Your task to perform on an android device: Show me productivity apps on the Play Store Image 0: 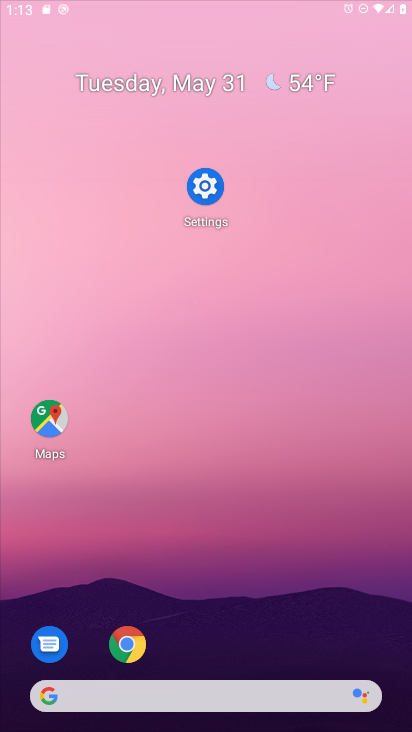
Step 0: press home button
Your task to perform on an android device: Show me productivity apps on the Play Store Image 1: 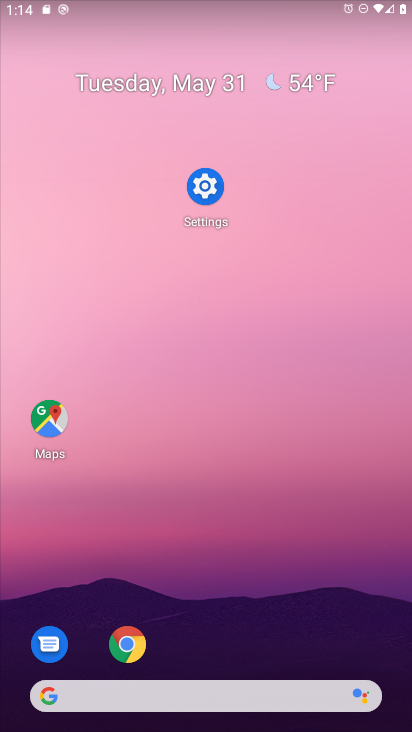
Step 1: drag from (260, 498) to (273, 20)
Your task to perform on an android device: Show me productivity apps on the Play Store Image 2: 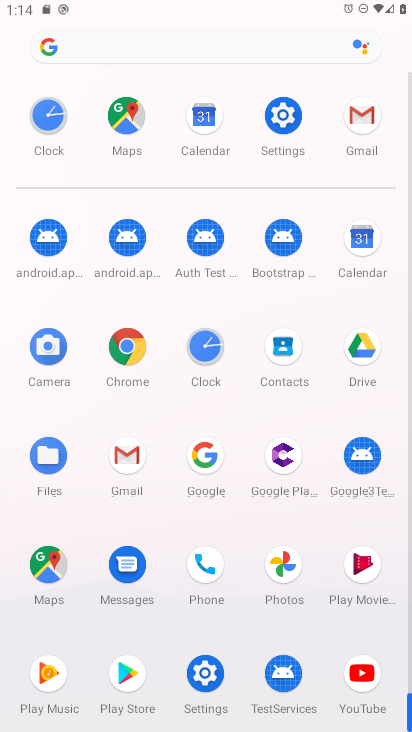
Step 2: click (129, 669)
Your task to perform on an android device: Show me productivity apps on the Play Store Image 3: 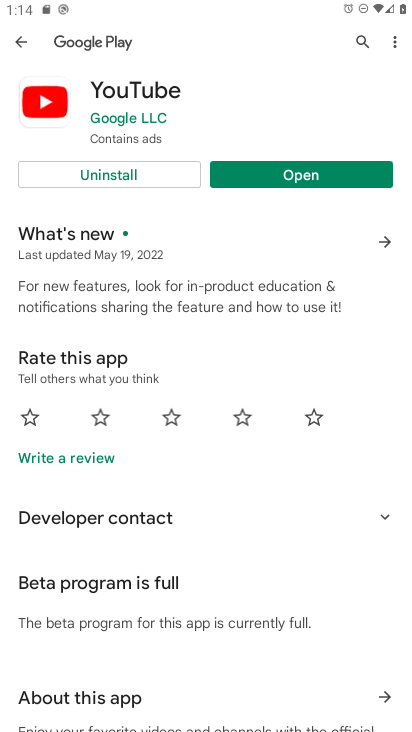
Step 3: click (23, 43)
Your task to perform on an android device: Show me productivity apps on the Play Store Image 4: 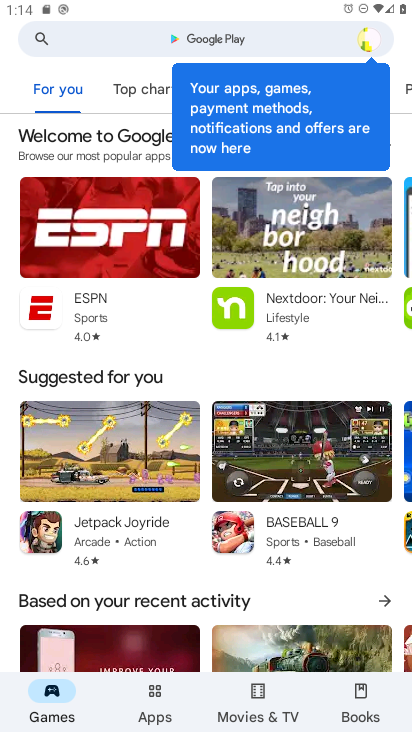
Step 4: click (147, 690)
Your task to perform on an android device: Show me productivity apps on the Play Store Image 5: 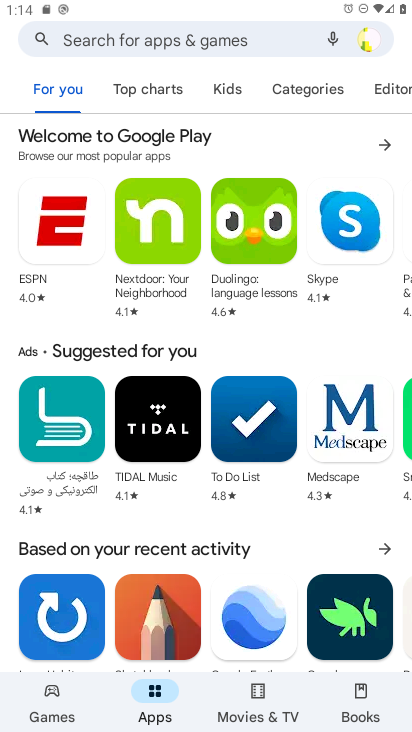
Step 5: click (317, 89)
Your task to perform on an android device: Show me productivity apps on the Play Store Image 6: 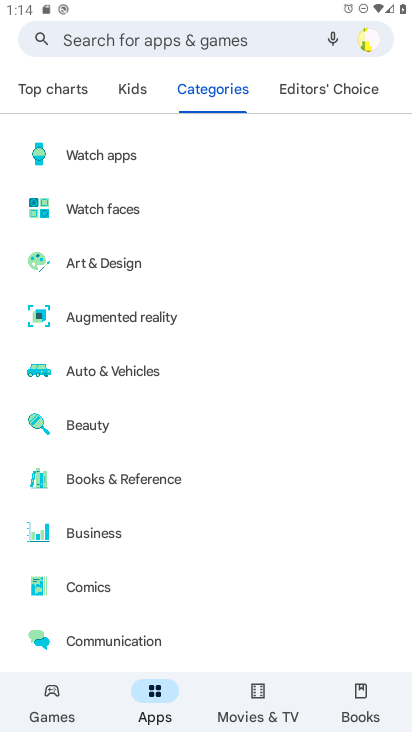
Step 6: drag from (259, 578) to (291, 179)
Your task to perform on an android device: Show me productivity apps on the Play Store Image 7: 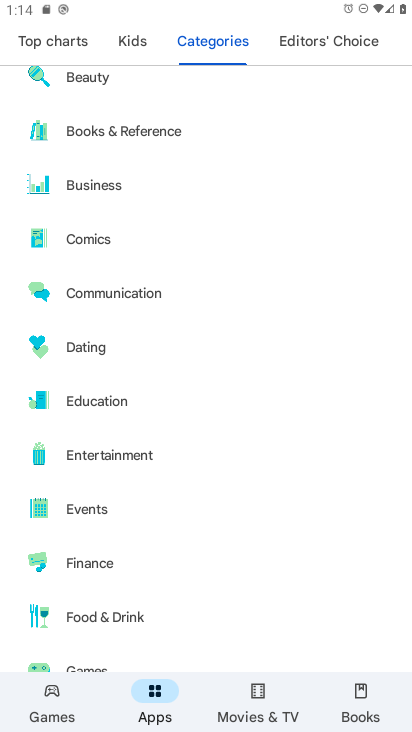
Step 7: drag from (292, 537) to (348, 110)
Your task to perform on an android device: Show me productivity apps on the Play Store Image 8: 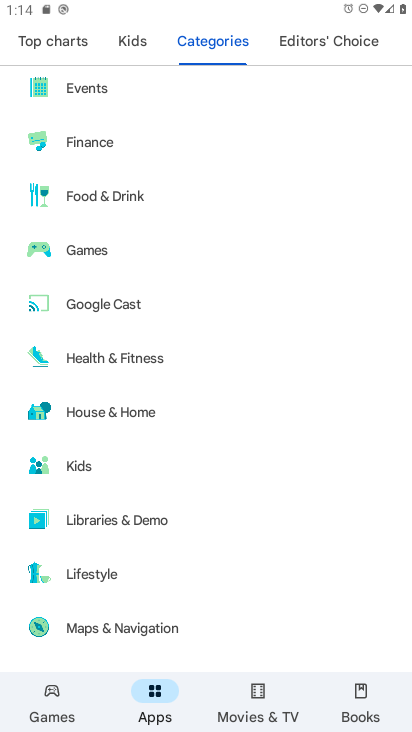
Step 8: drag from (334, 517) to (351, 214)
Your task to perform on an android device: Show me productivity apps on the Play Store Image 9: 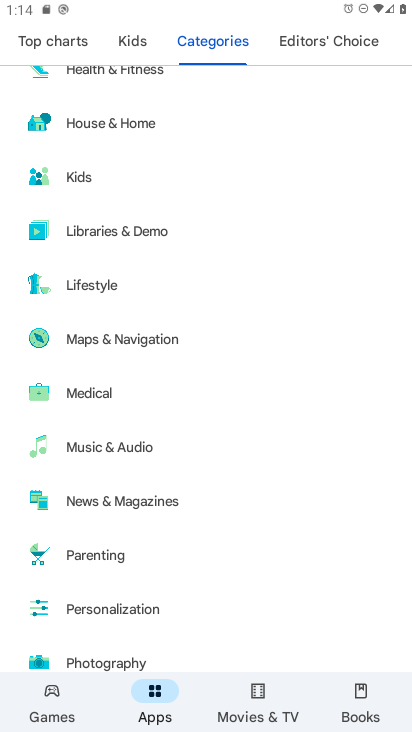
Step 9: drag from (283, 618) to (305, 337)
Your task to perform on an android device: Show me productivity apps on the Play Store Image 10: 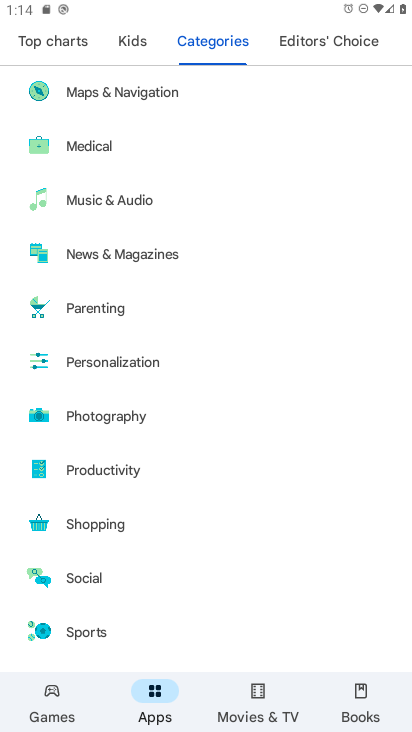
Step 10: click (106, 475)
Your task to perform on an android device: Show me productivity apps on the Play Store Image 11: 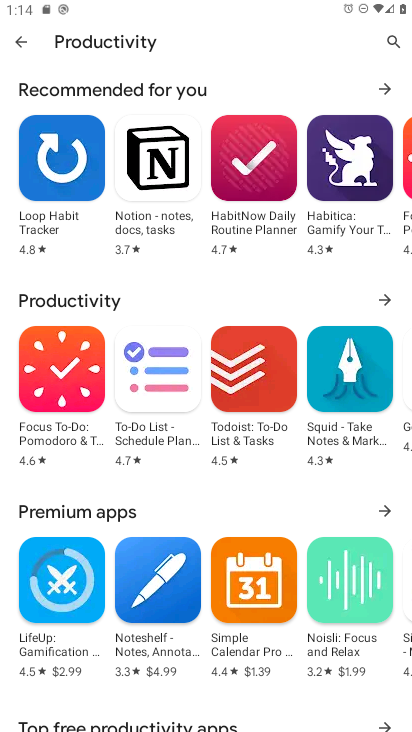
Step 11: task complete